Your task to perform on an android device: Open battery settings Image 0: 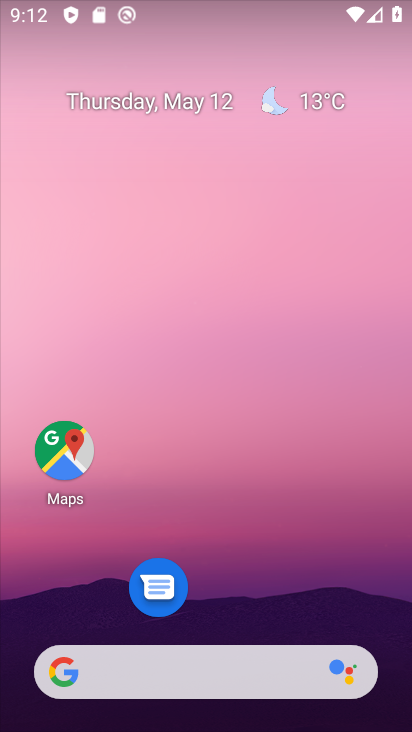
Step 0: drag from (200, 625) to (131, 5)
Your task to perform on an android device: Open battery settings Image 1: 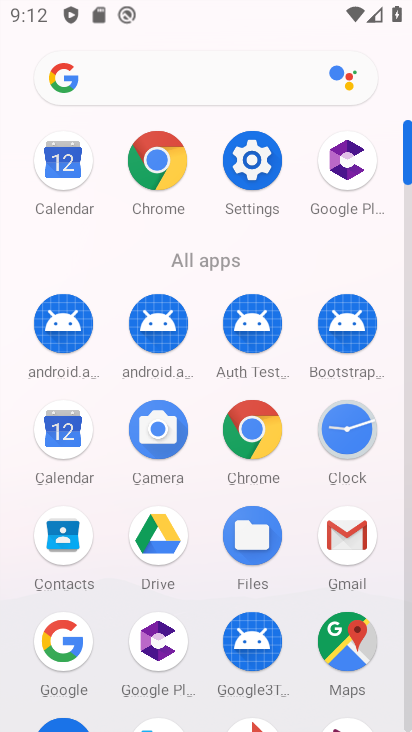
Step 1: click (240, 164)
Your task to perform on an android device: Open battery settings Image 2: 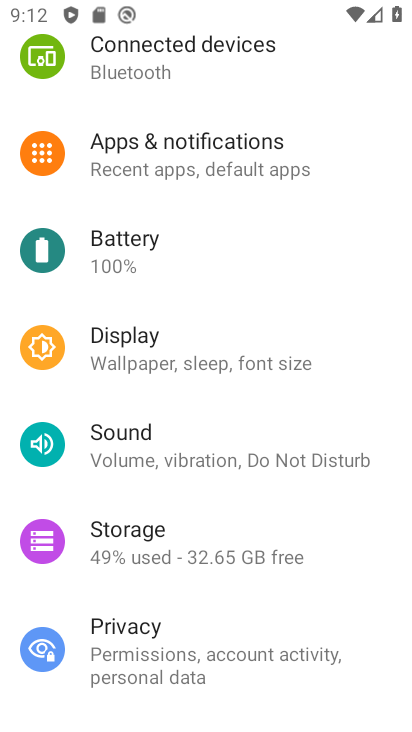
Step 2: click (106, 226)
Your task to perform on an android device: Open battery settings Image 3: 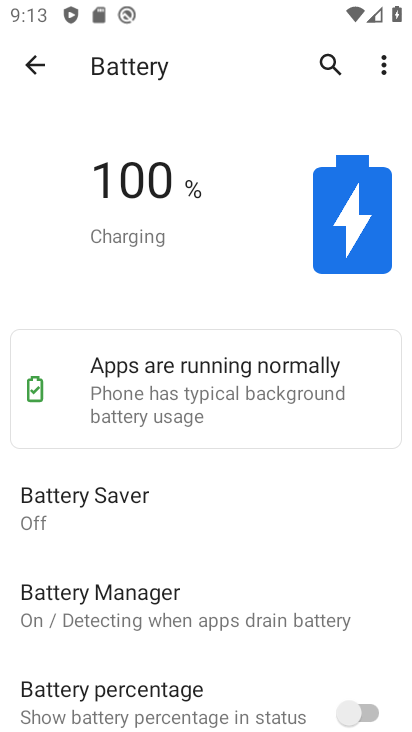
Step 3: task complete